Your task to perform on an android device: stop showing notifications on the lock screen Image 0: 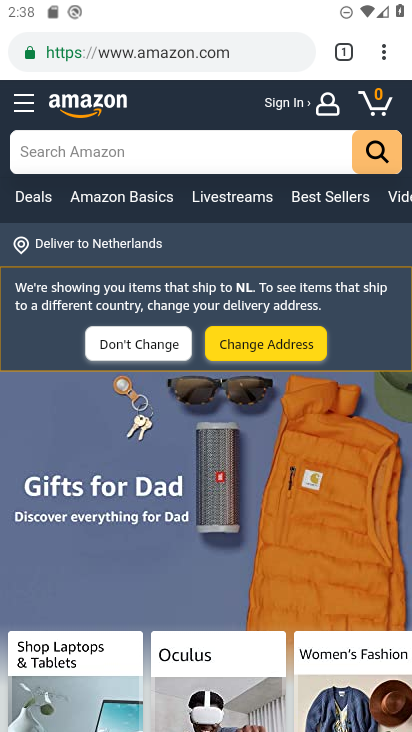
Step 0: press home button
Your task to perform on an android device: stop showing notifications on the lock screen Image 1: 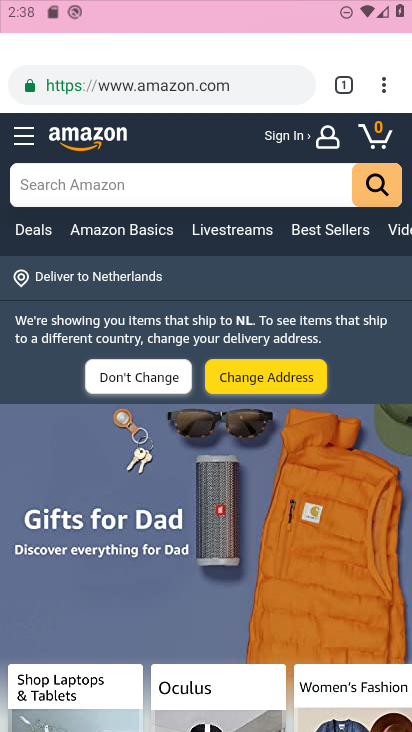
Step 1: drag from (265, 641) to (246, 189)
Your task to perform on an android device: stop showing notifications on the lock screen Image 2: 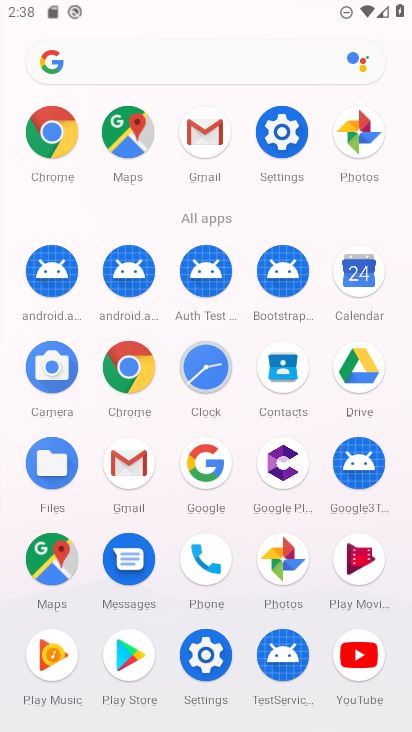
Step 2: click (272, 137)
Your task to perform on an android device: stop showing notifications on the lock screen Image 3: 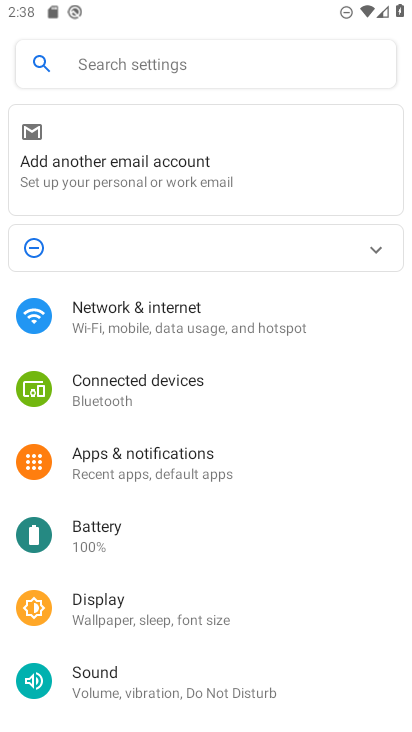
Step 3: click (197, 480)
Your task to perform on an android device: stop showing notifications on the lock screen Image 4: 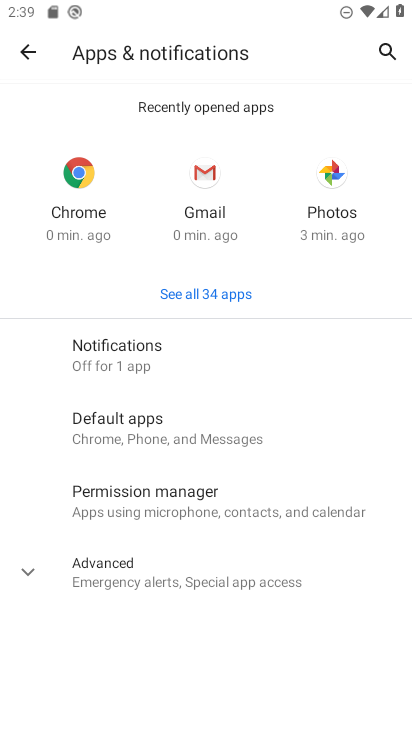
Step 4: click (171, 376)
Your task to perform on an android device: stop showing notifications on the lock screen Image 5: 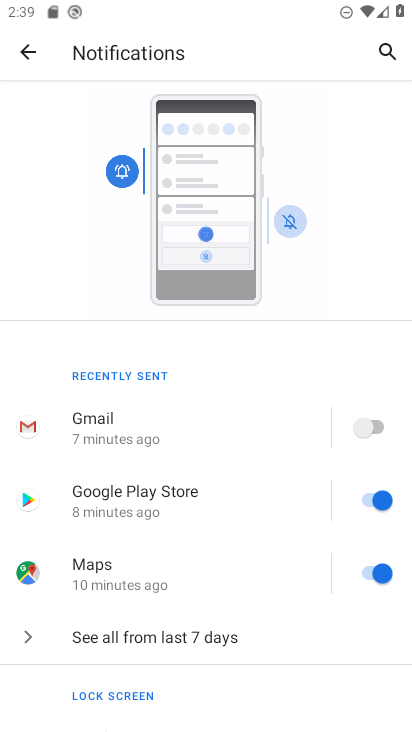
Step 5: drag from (201, 603) to (222, 329)
Your task to perform on an android device: stop showing notifications on the lock screen Image 6: 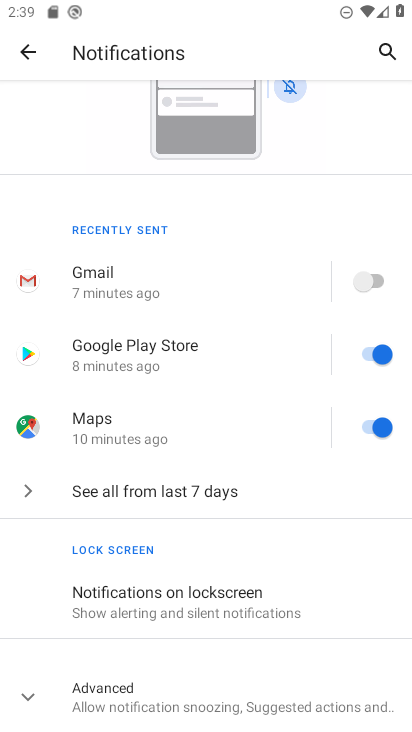
Step 6: click (187, 604)
Your task to perform on an android device: stop showing notifications on the lock screen Image 7: 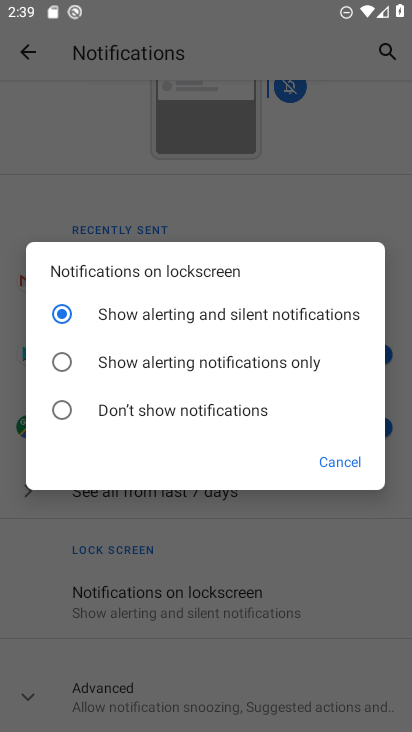
Step 7: click (219, 407)
Your task to perform on an android device: stop showing notifications on the lock screen Image 8: 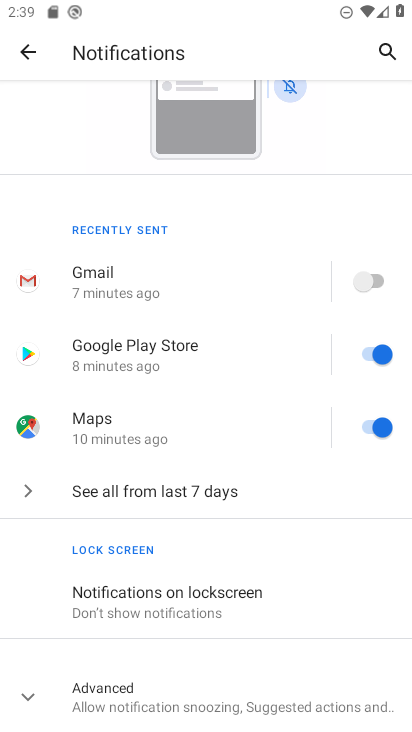
Step 8: task complete